Your task to perform on an android device: check data usage Image 0: 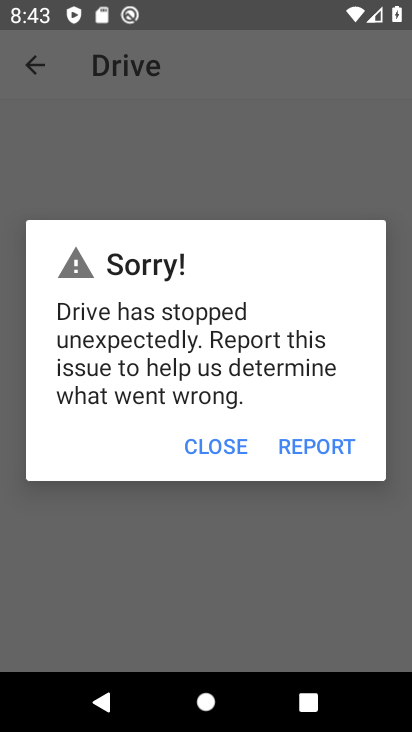
Step 0: press home button
Your task to perform on an android device: check data usage Image 1: 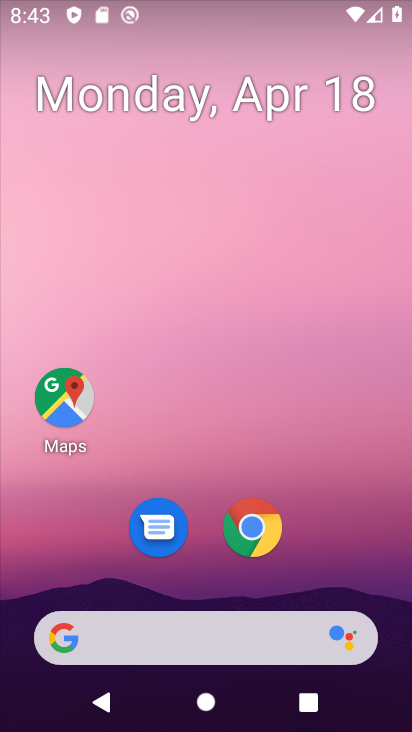
Step 1: drag from (286, 4) to (290, 376)
Your task to perform on an android device: check data usage Image 2: 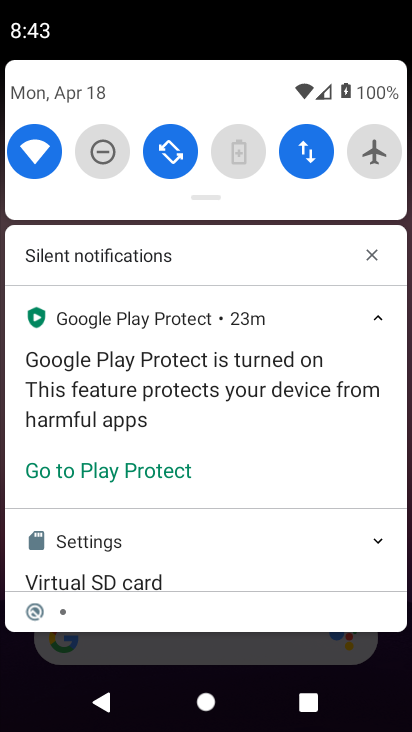
Step 2: drag from (274, 172) to (268, 554)
Your task to perform on an android device: check data usage Image 3: 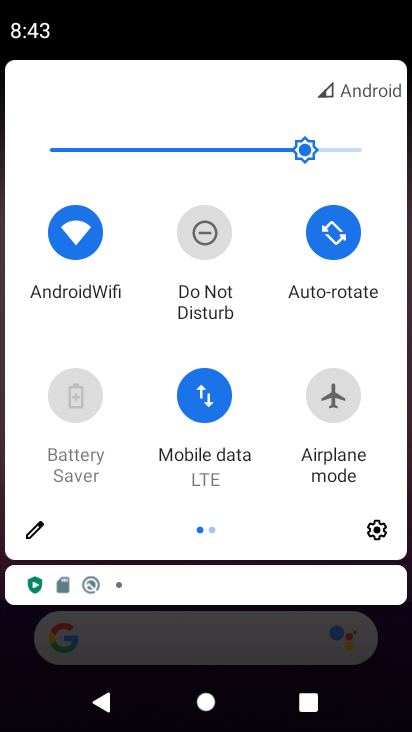
Step 3: click (207, 388)
Your task to perform on an android device: check data usage Image 4: 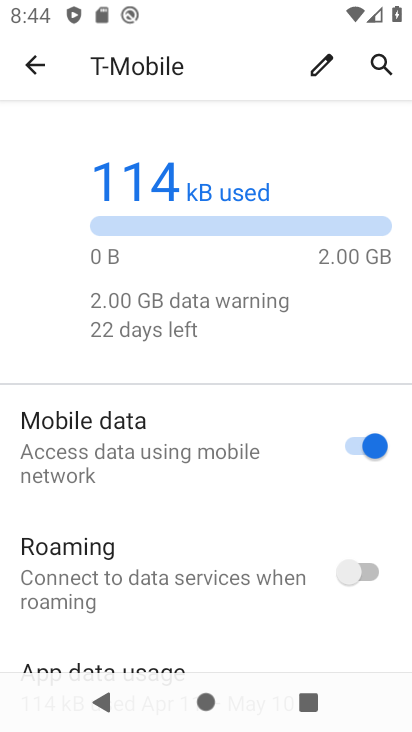
Step 4: click (78, 424)
Your task to perform on an android device: check data usage Image 5: 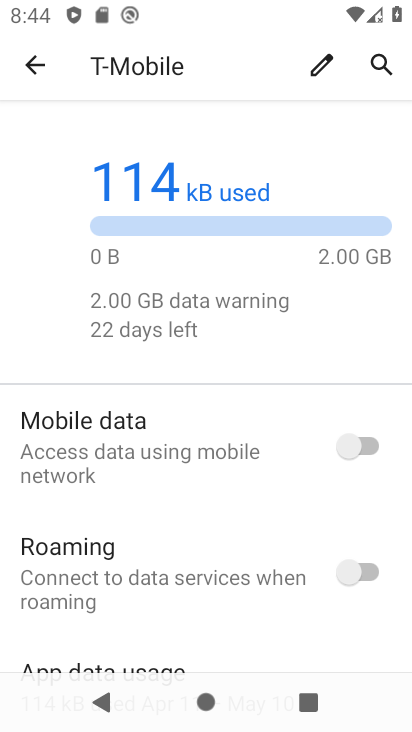
Step 5: click (78, 424)
Your task to perform on an android device: check data usage Image 6: 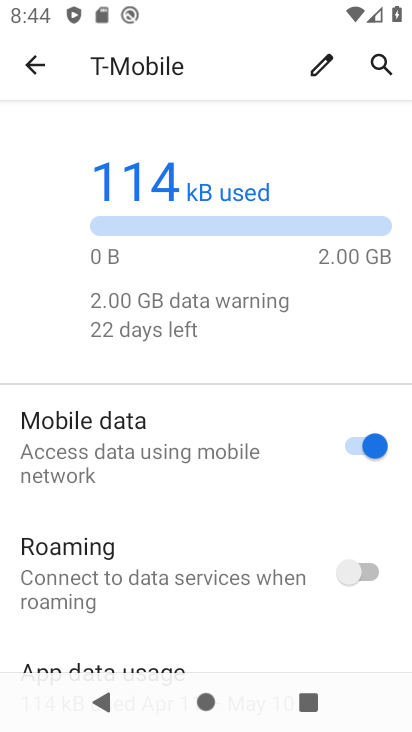
Step 6: task complete